Your task to perform on an android device: move an email to a new category in the gmail app Image 0: 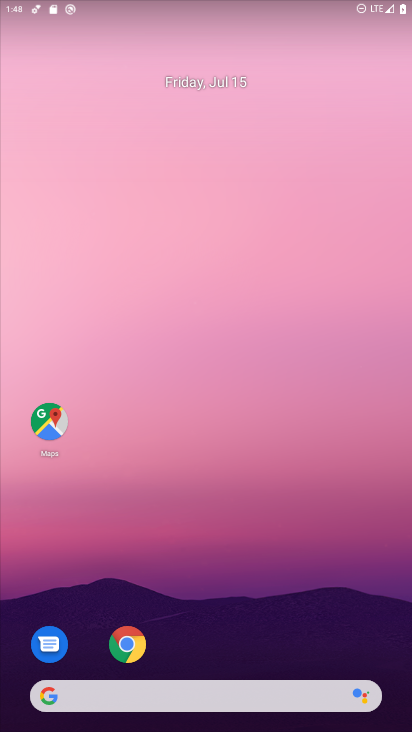
Step 0: press back button
Your task to perform on an android device: move an email to a new category in the gmail app Image 1: 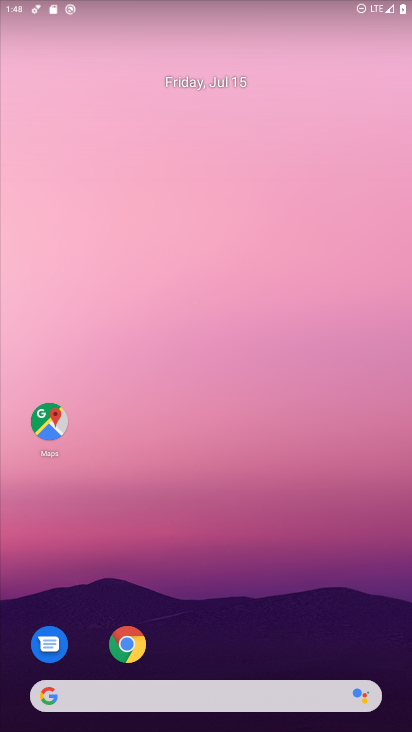
Step 1: press home button
Your task to perform on an android device: move an email to a new category in the gmail app Image 2: 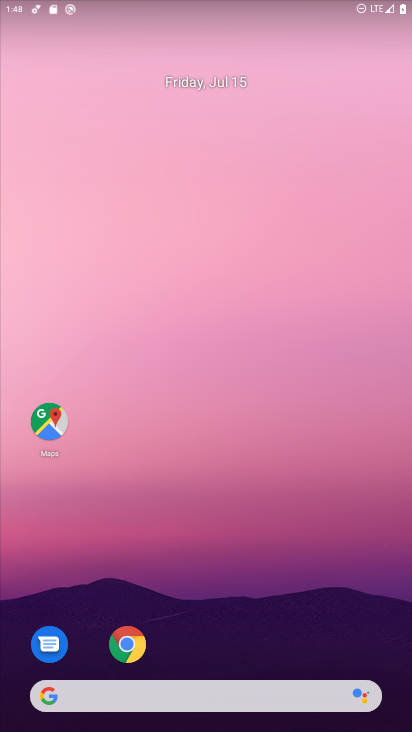
Step 2: drag from (34, 515) to (271, 2)
Your task to perform on an android device: move an email to a new category in the gmail app Image 3: 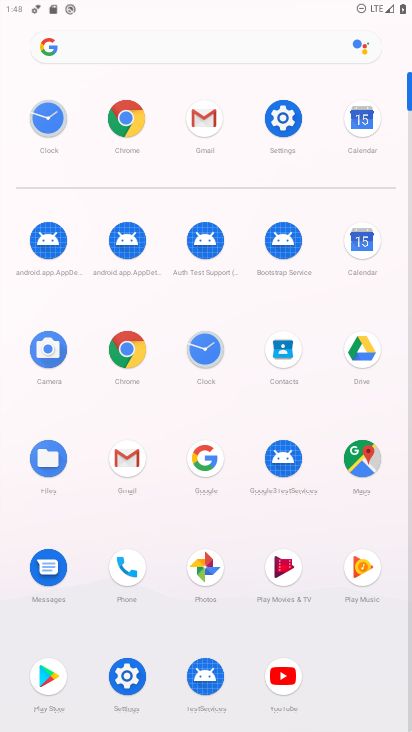
Step 3: click (203, 116)
Your task to perform on an android device: move an email to a new category in the gmail app Image 4: 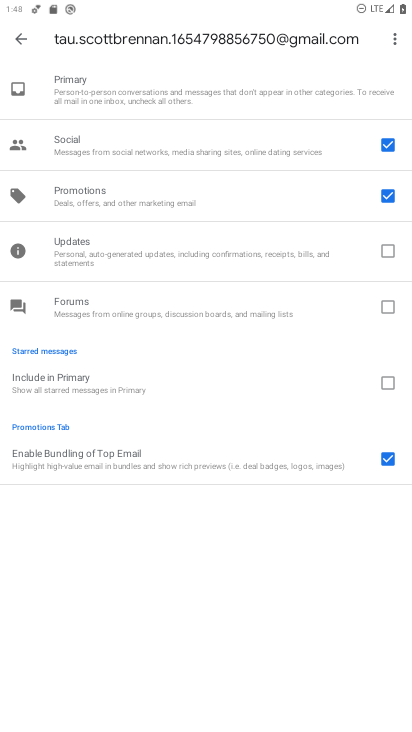
Step 4: task complete